Your task to perform on an android device: Open calendar and show me the third week of next month Image 0: 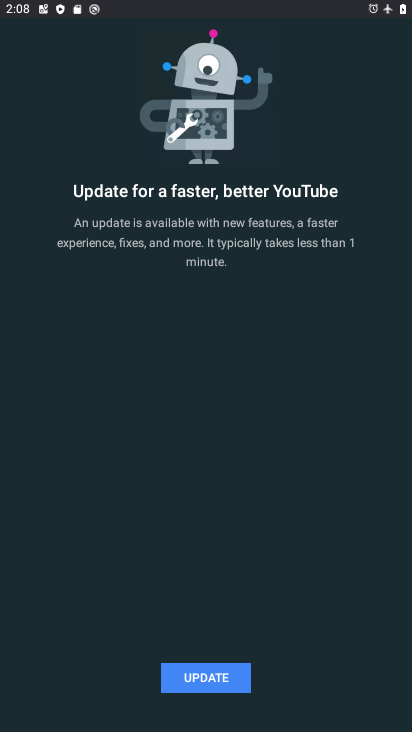
Step 0: press home button
Your task to perform on an android device: Open calendar and show me the third week of next month Image 1: 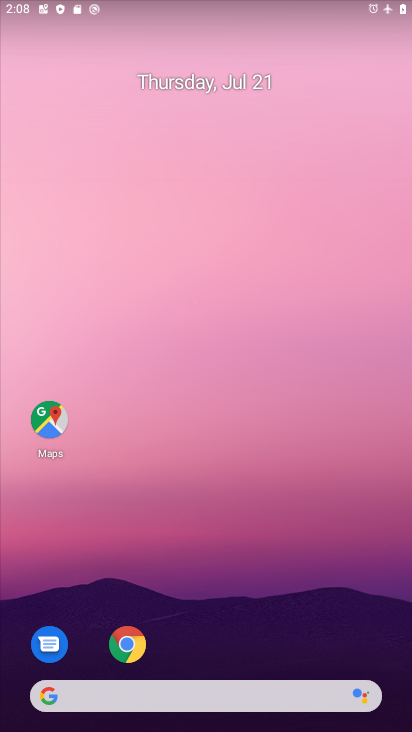
Step 1: drag from (140, 677) to (140, 258)
Your task to perform on an android device: Open calendar and show me the third week of next month Image 2: 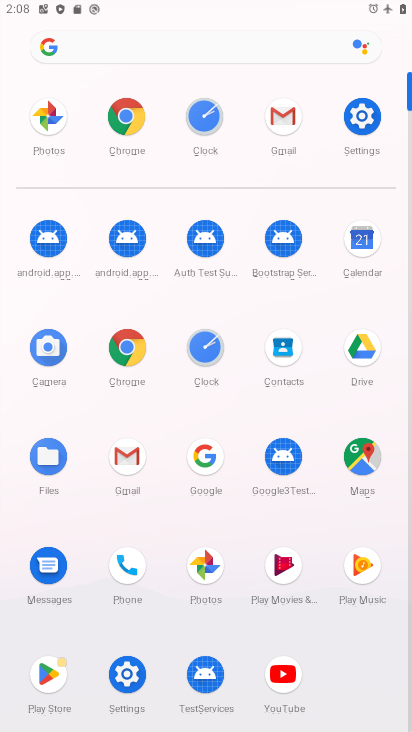
Step 2: click (371, 235)
Your task to perform on an android device: Open calendar and show me the third week of next month Image 3: 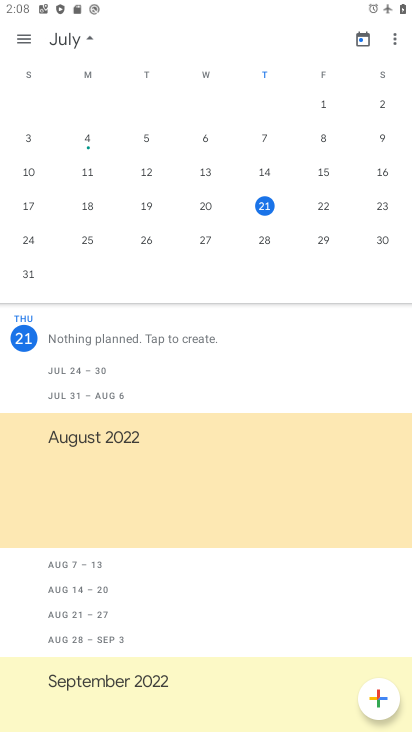
Step 3: drag from (370, 187) to (8, 256)
Your task to perform on an android device: Open calendar and show me the third week of next month Image 4: 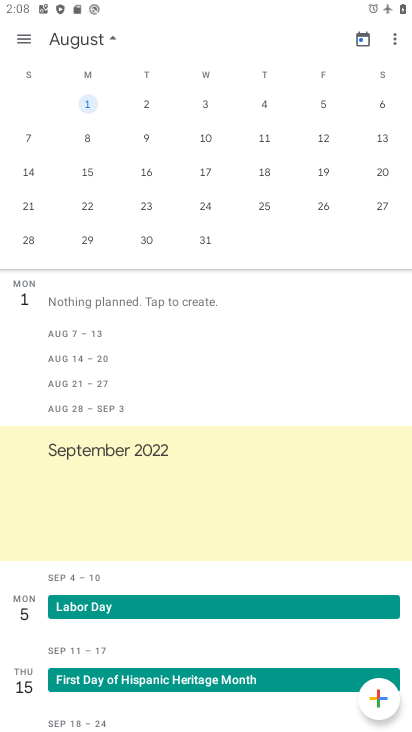
Step 4: click (29, 171)
Your task to perform on an android device: Open calendar and show me the third week of next month Image 5: 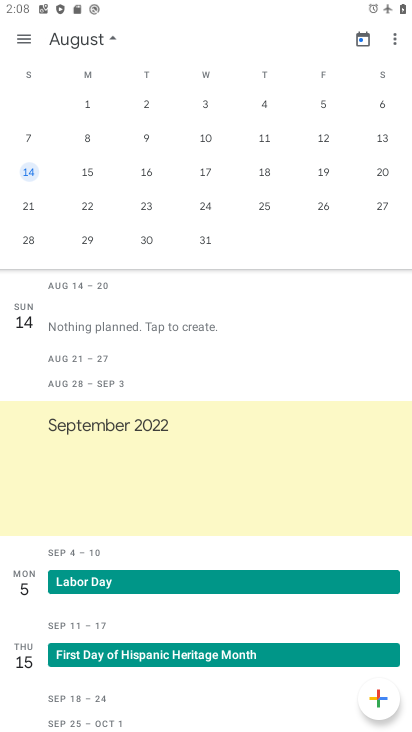
Step 5: task complete